Your task to perform on an android device: manage bookmarks in the chrome app Image 0: 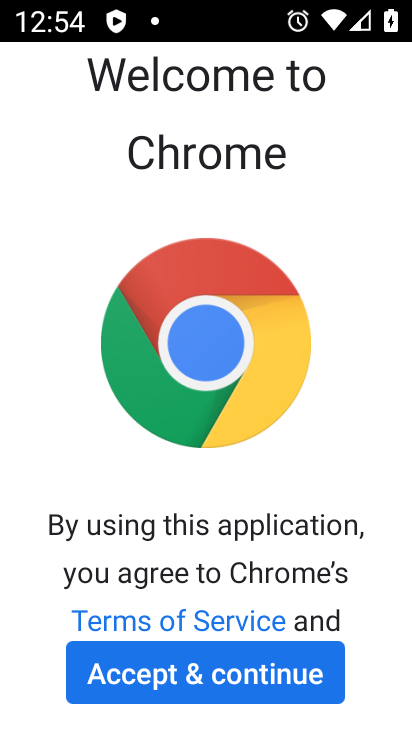
Step 0: click (243, 664)
Your task to perform on an android device: manage bookmarks in the chrome app Image 1: 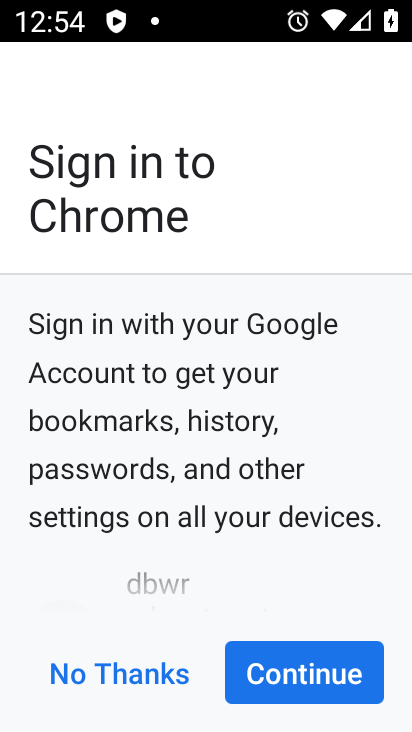
Step 1: click (246, 666)
Your task to perform on an android device: manage bookmarks in the chrome app Image 2: 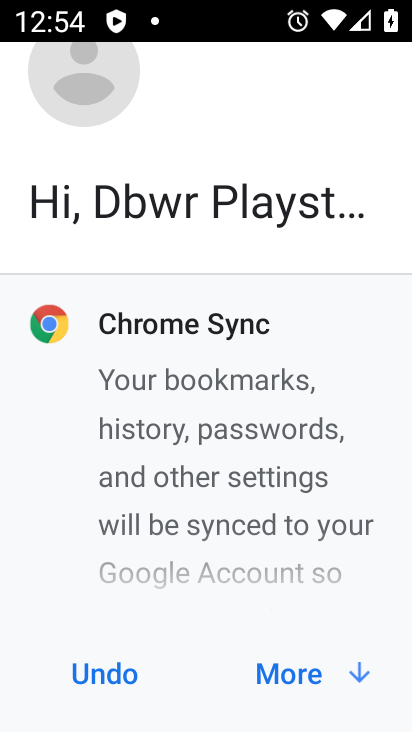
Step 2: click (273, 670)
Your task to perform on an android device: manage bookmarks in the chrome app Image 3: 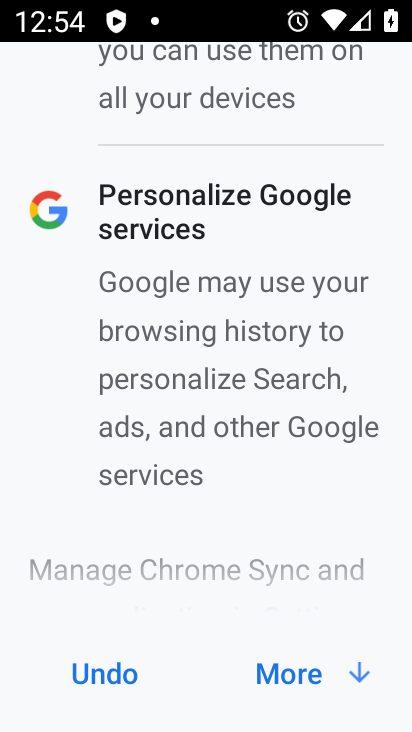
Step 3: click (318, 674)
Your task to perform on an android device: manage bookmarks in the chrome app Image 4: 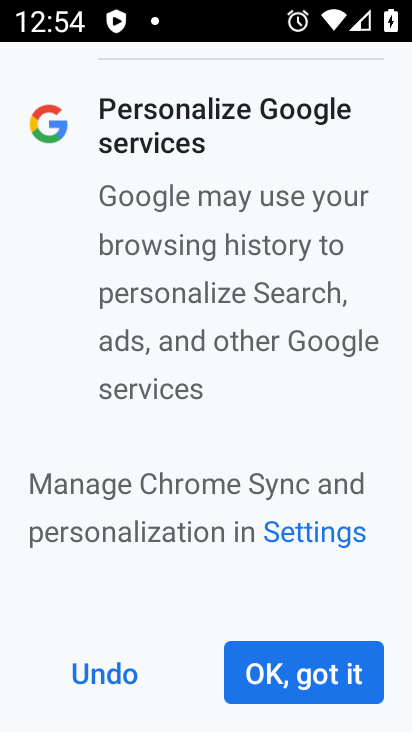
Step 4: click (318, 674)
Your task to perform on an android device: manage bookmarks in the chrome app Image 5: 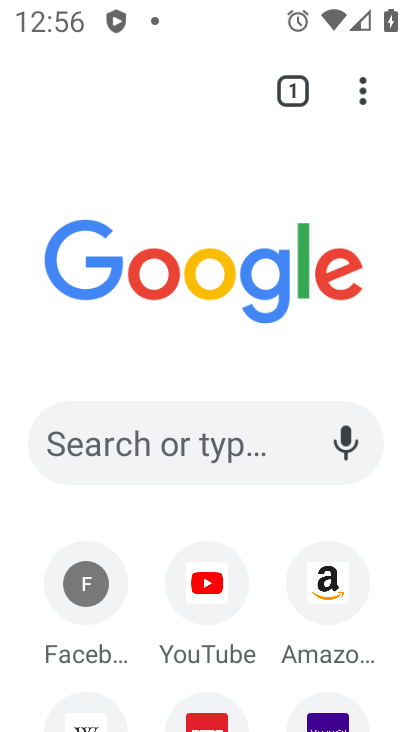
Step 5: drag from (351, 108) to (326, 154)
Your task to perform on an android device: manage bookmarks in the chrome app Image 6: 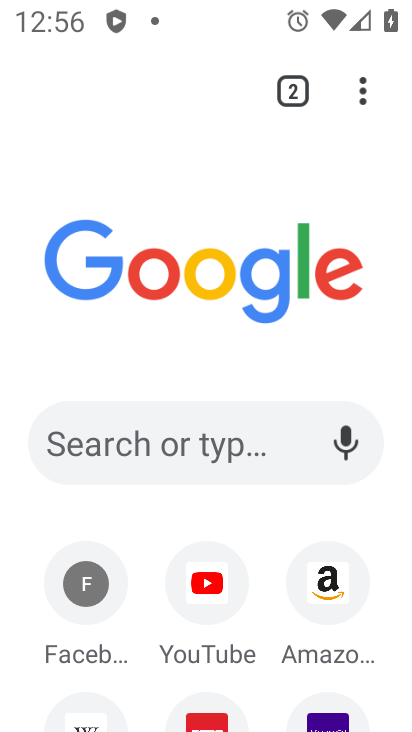
Step 6: click (359, 94)
Your task to perform on an android device: manage bookmarks in the chrome app Image 7: 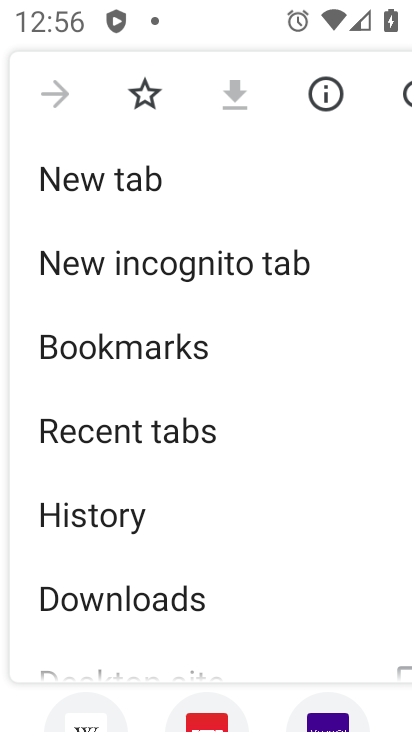
Step 7: click (140, 329)
Your task to perform on an android device: manage bookmarks in the chrome app Image 8: 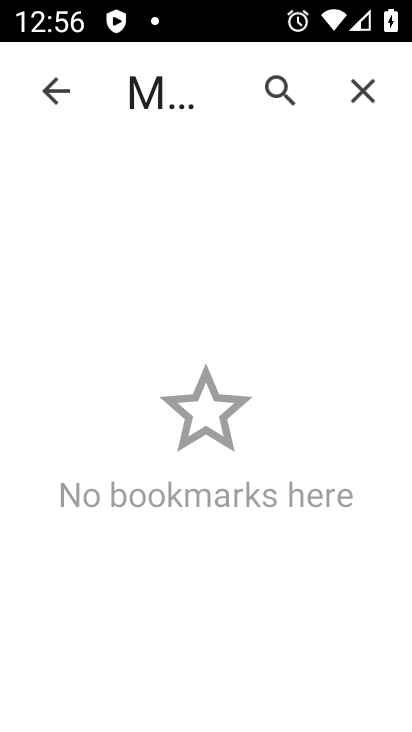
Step 8: task complete